Your task to perform on an android device: turn off sleep mode Image 0: 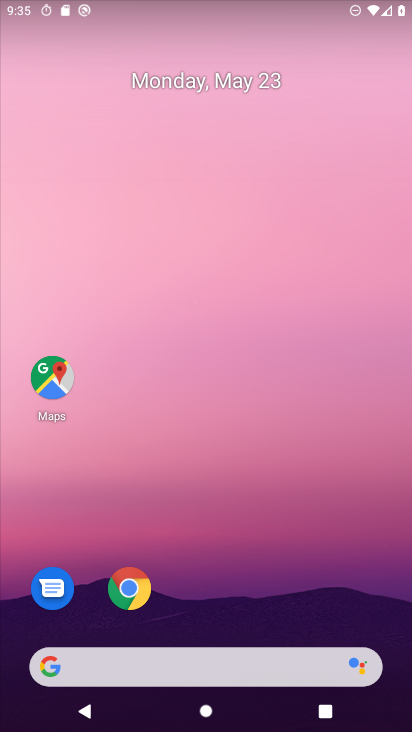
Step 0: drag from (377, 573) to (337, 275)
Your task to perform on an android device: turn off sleep mode Image 1: 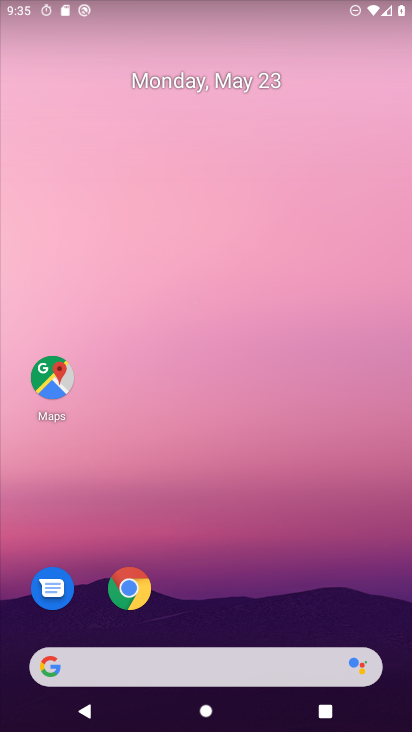
Step 1: drag from (386, 675) to (353, 284)
Your task to perform on an android device: turn off sleep mode Image 2: 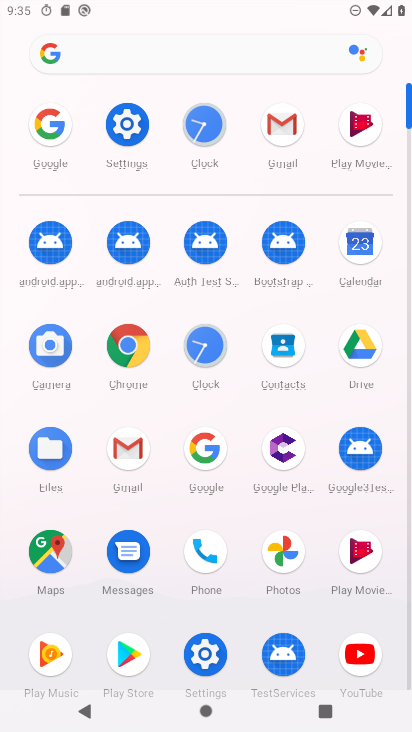
Step 2: click (134, 119)
Your task to perform on an android device: turn off sleep mode Image 3: 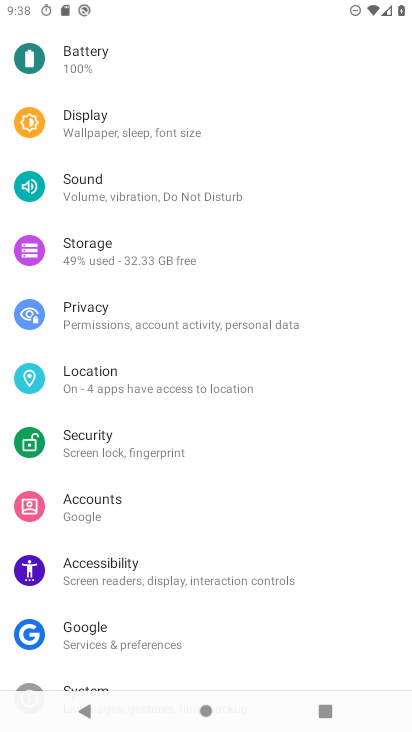
Step 3: click (96, 121)
Your task to perform on an android device: turn off sleep mode Image 4: 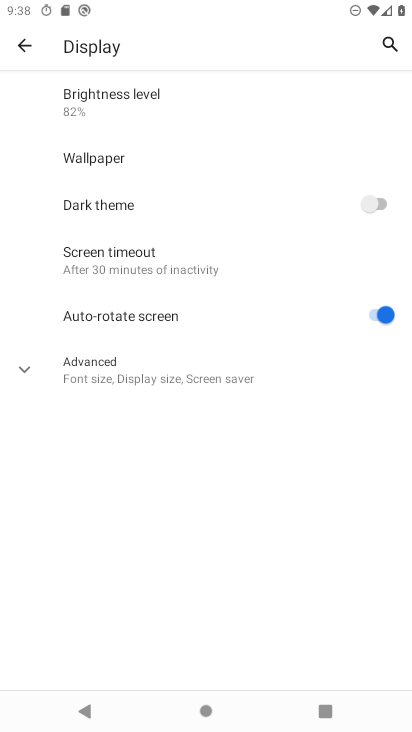
Step 4: click (115, 252)
Your task to perform on an android device: turn off sleep mode Image 5: 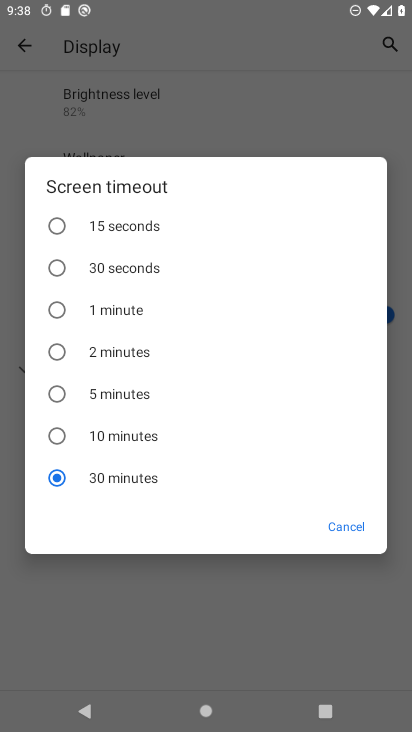
Step 5: task complete